Your task to perform on an android device: turn on airplane mode Image 0: 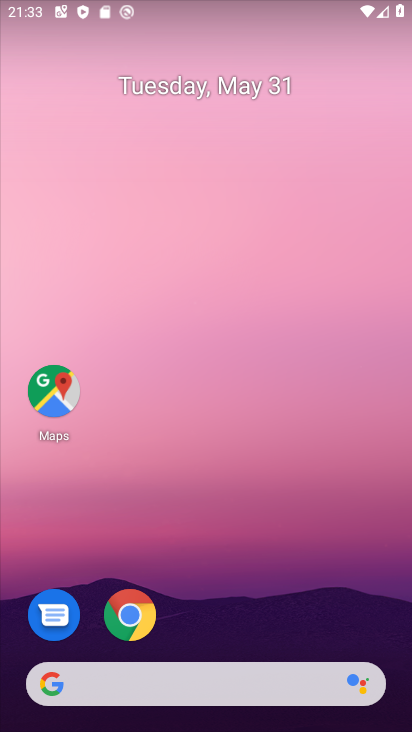
Step 0: drag from (211, 3) to (218, 228)
Your task to perform on an android device: turn on airplane mode Image 1: 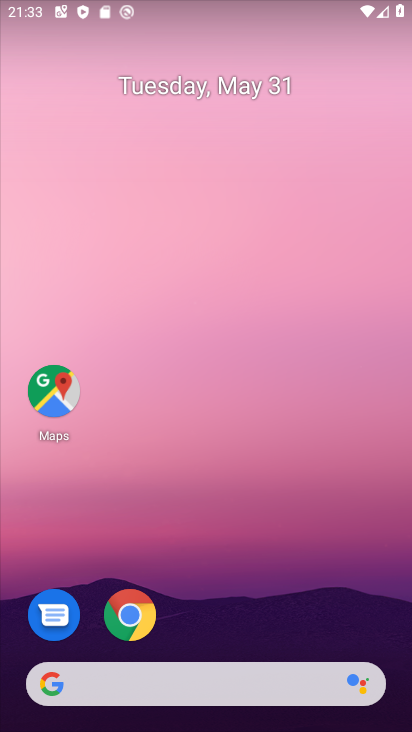
Step 1: drag from (252, 3) to (257, 325)
Your task to perform on an android device: turn on airplane mode Image 2: 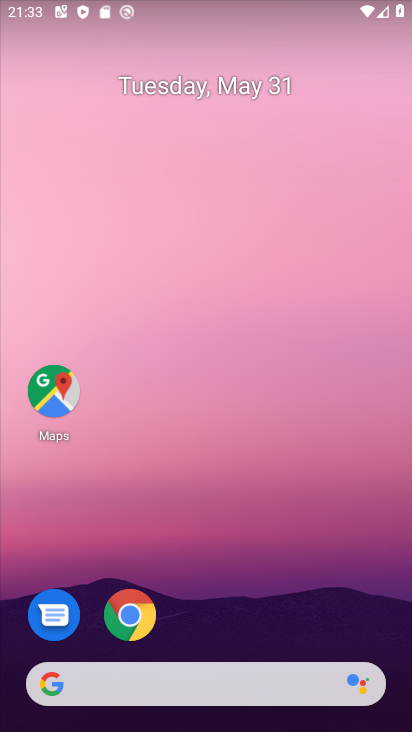
Step 2: drag from (349, 13) to (316, 690)
Your task to perform on an android device: turn on airplane mode Image 3: 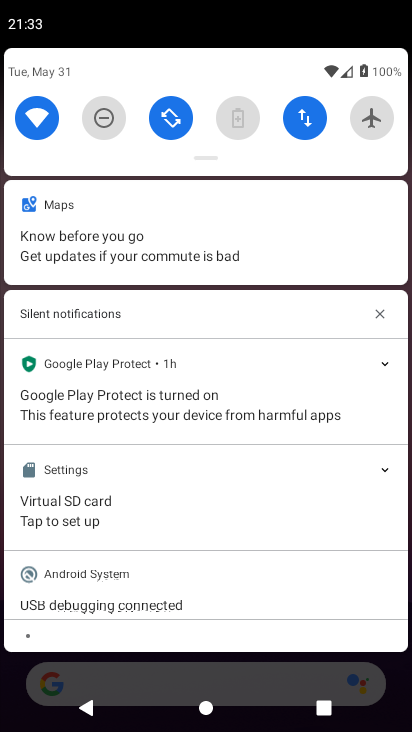
Step 3: click (362, 117)
Your task to perform on an android device: turn on airplane mode Image 4: 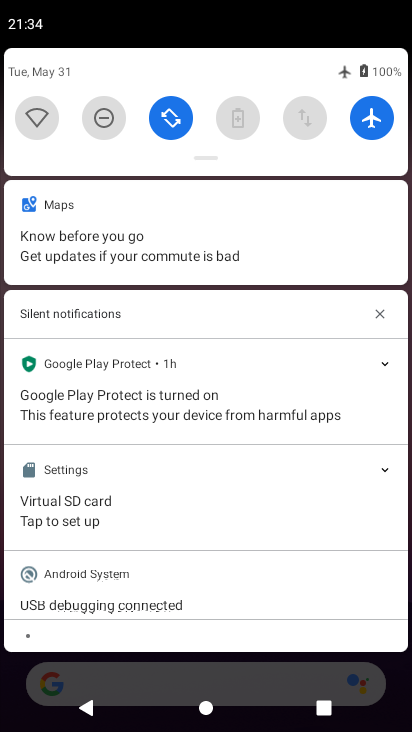
Step 4: task complete